Your task to perform on an android device: toggle javascript in the chrome app Image 0: 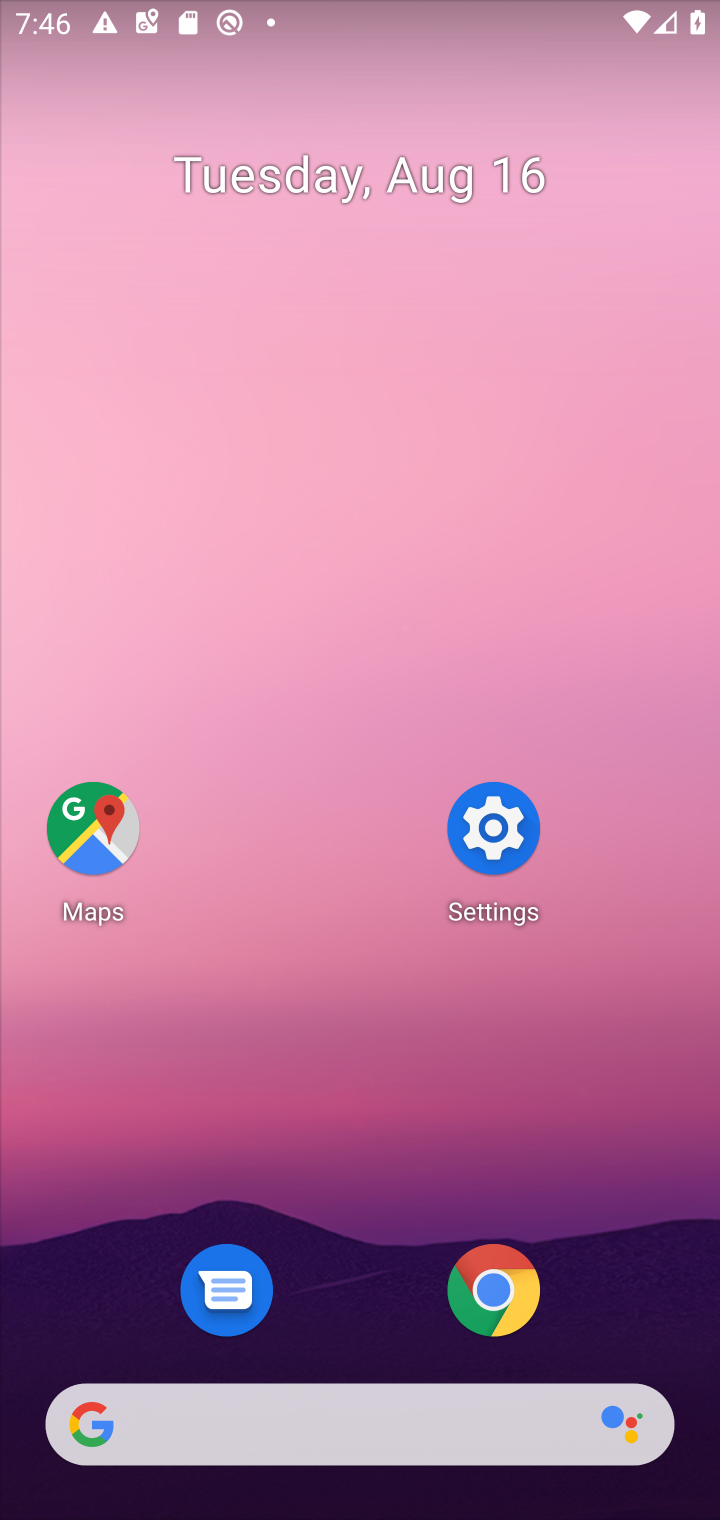
Step 0: click (515, 1295)
Your task to perform on an android device: toggle javascript in the chrome app Image 1: 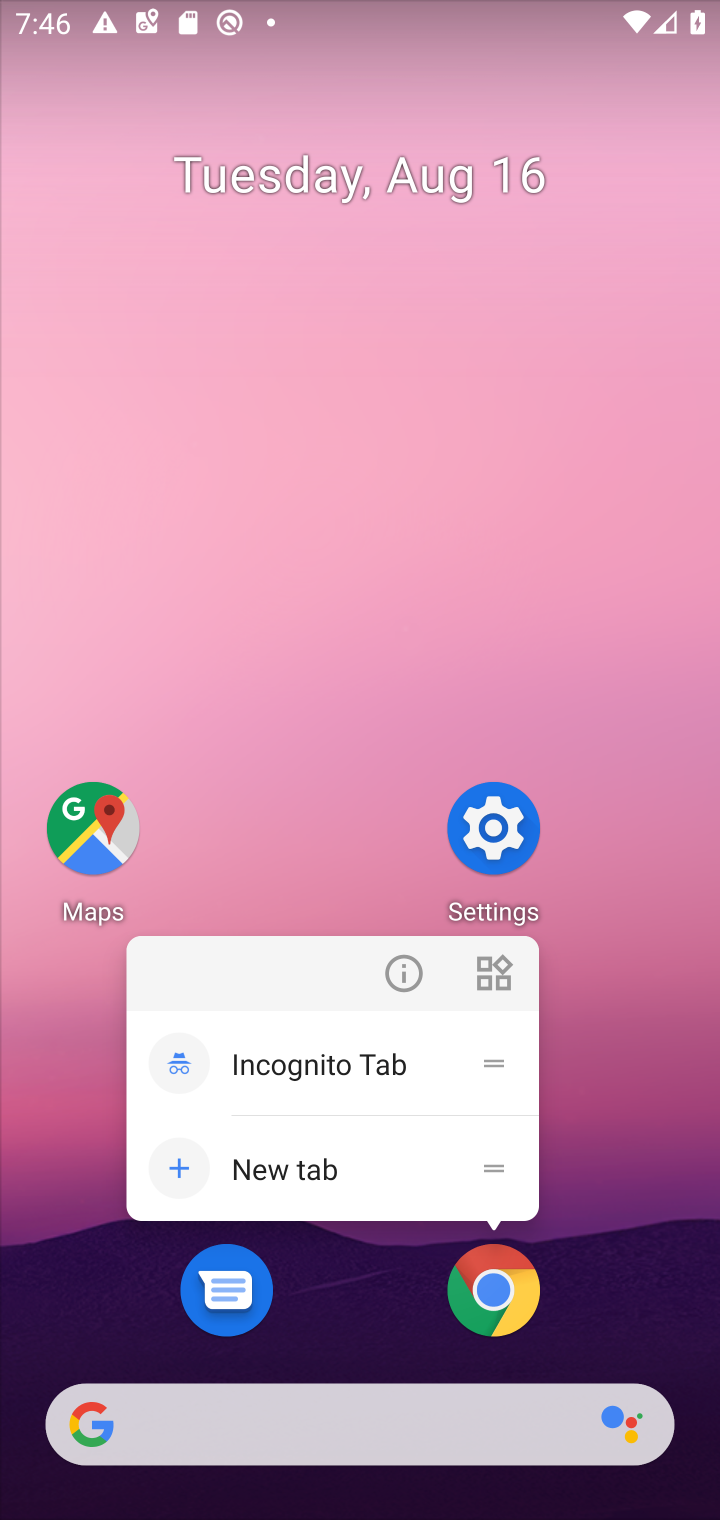
Step 1: click (499, 1288)
Your task to perform on an android device: toggle javascript in the chrome app Image 2: 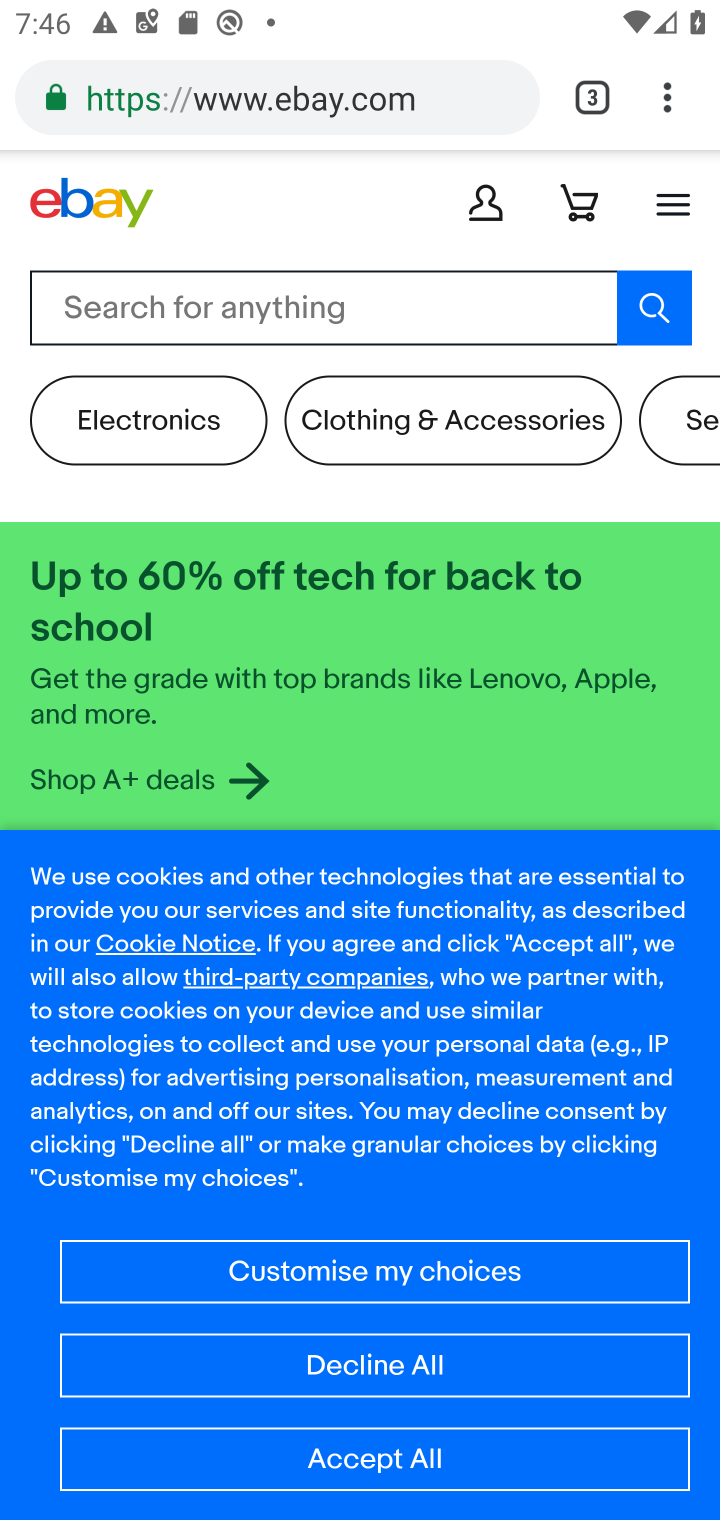
Step 2: drag from (696, 107) to (366, 1293)
Your task to perform on an android device: toggle javascript in the chrome app Image 3: 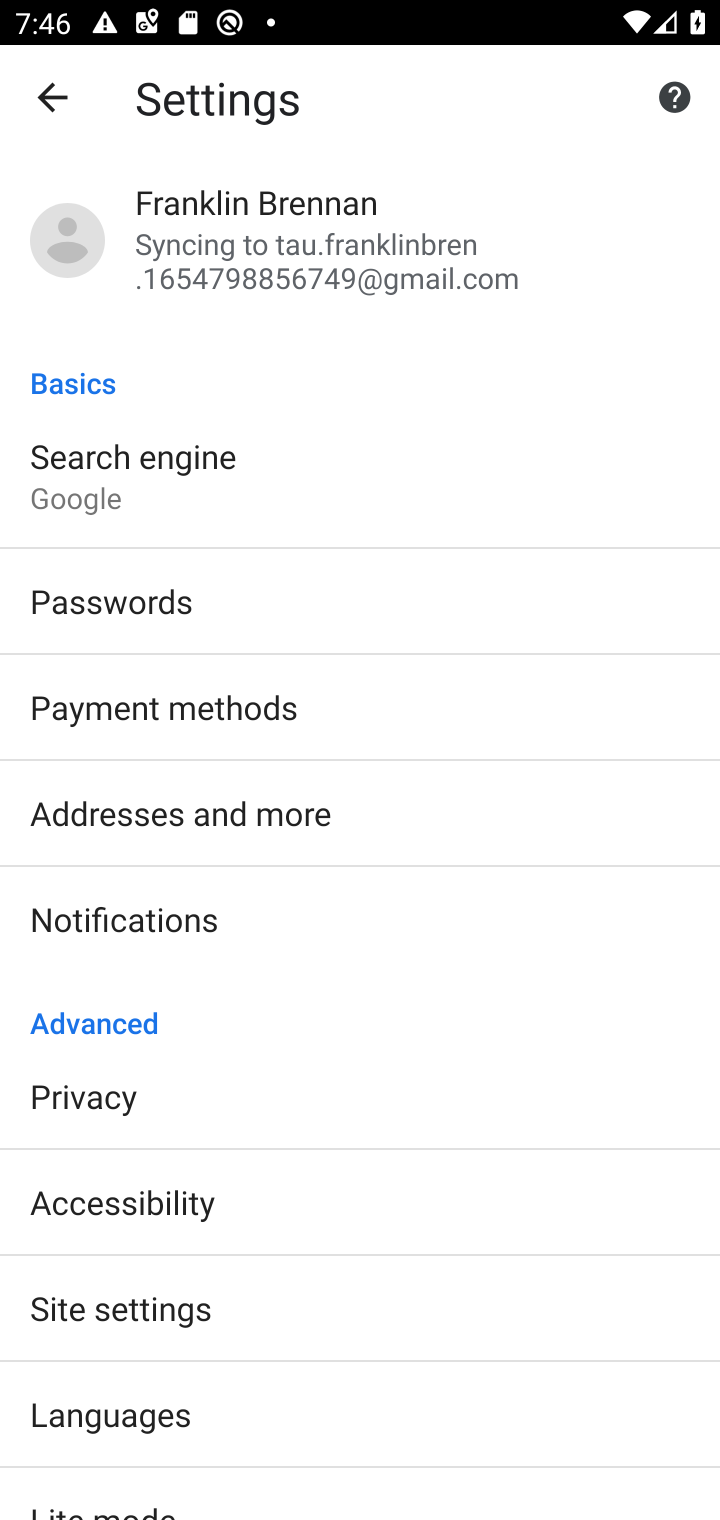
Step 3: click (178, 1296)
Your task to perform on an android device: toggle javascript in the chrome app Image 4: 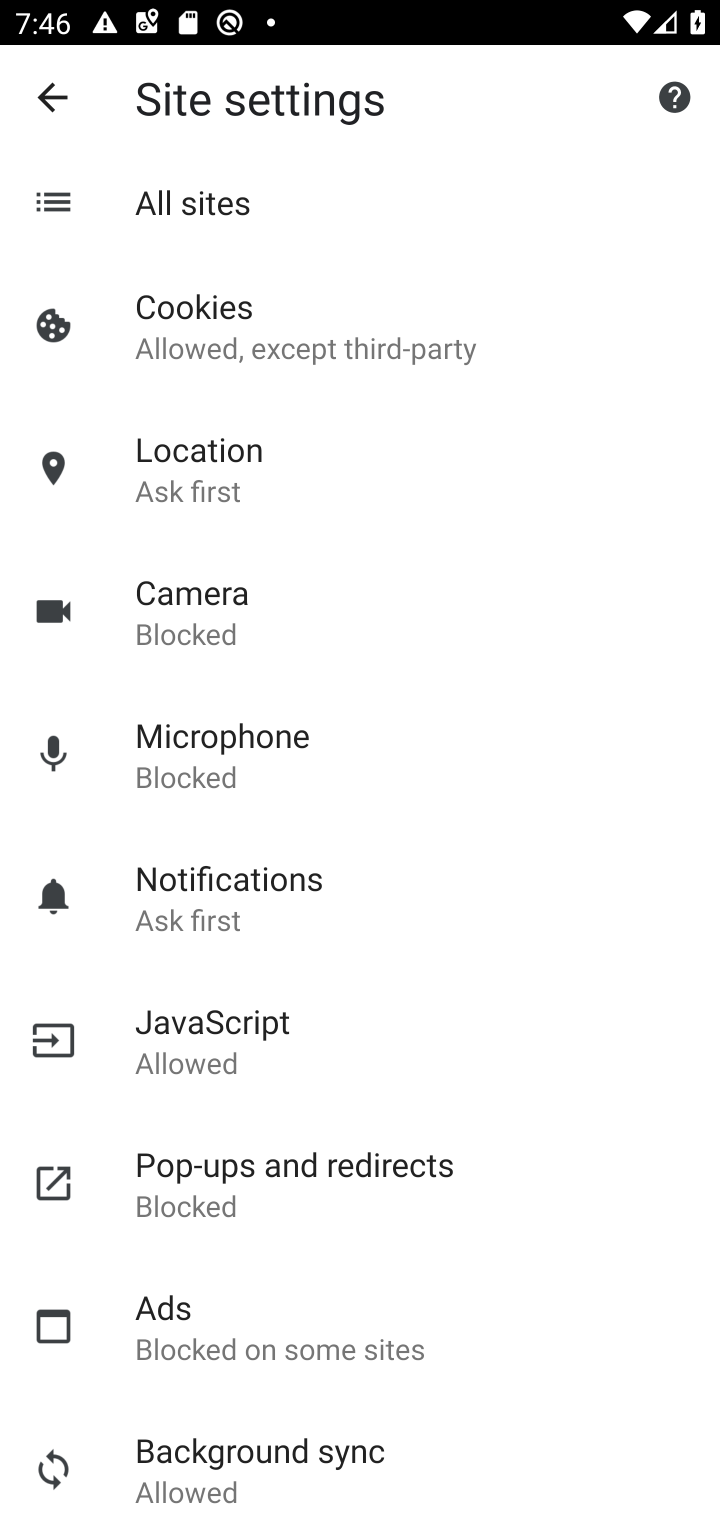
Step 4: click (232, 1044)
Your task to perform on an android device: toggle javascript in the chrome app Image 5: 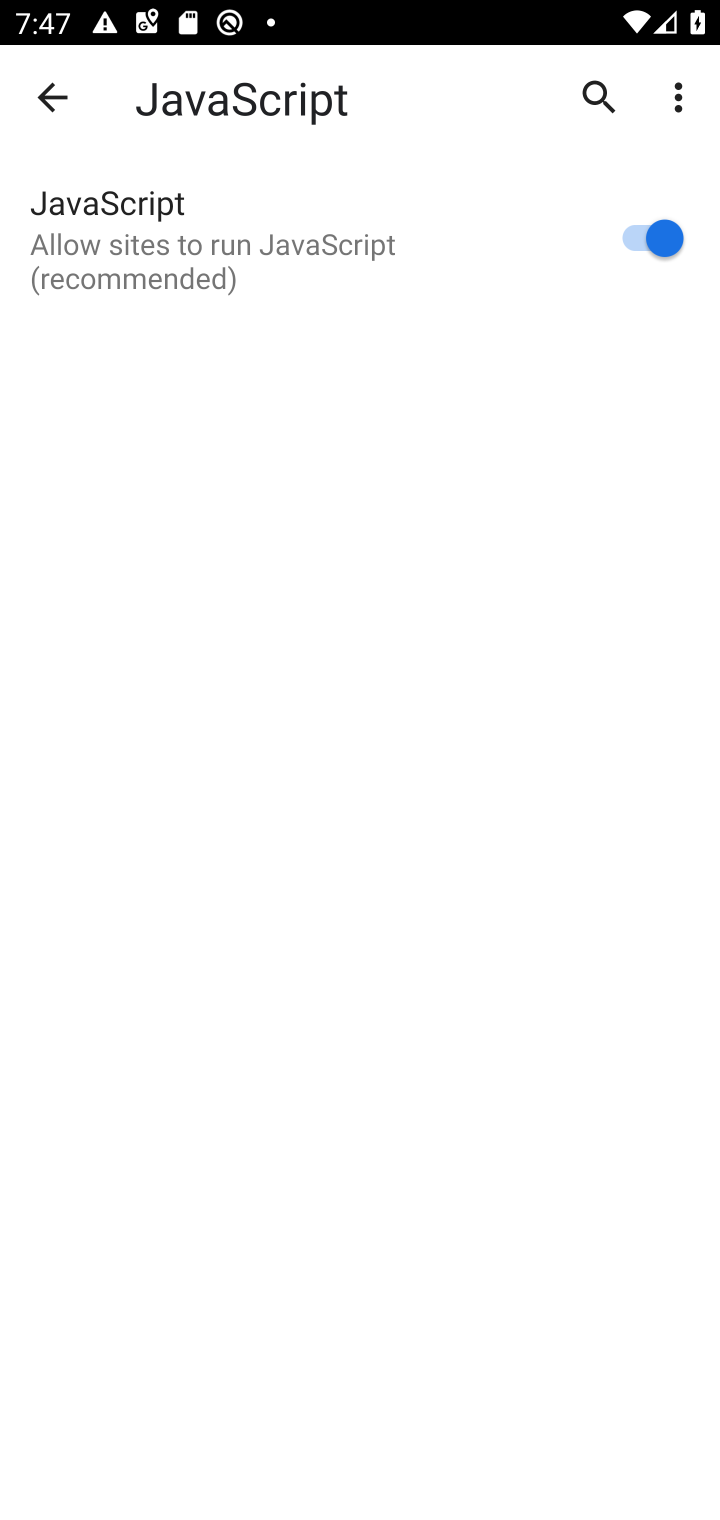
Step 5: click (638, 243)
Your task to perform on an android device: toggle javascript in the chrome app Image 6: 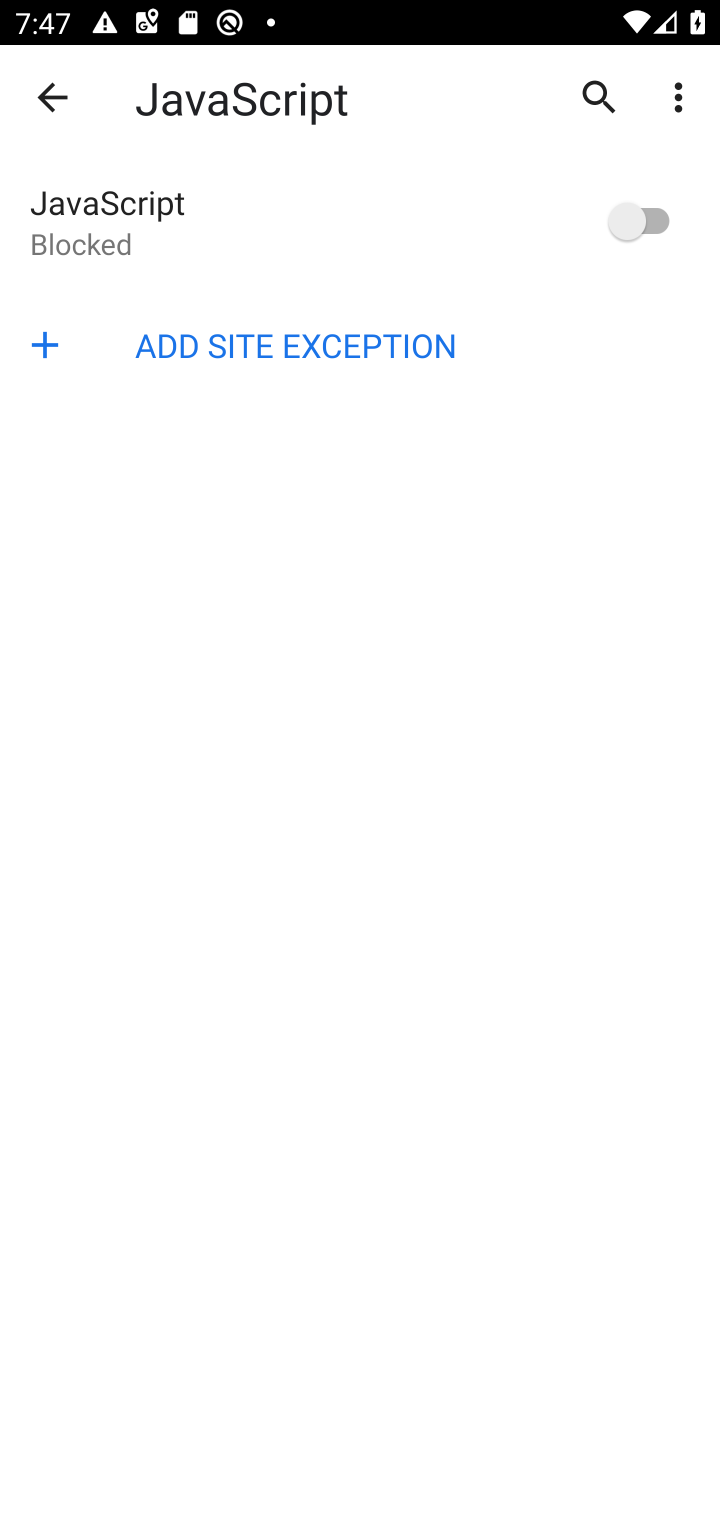
Step 6: task complete